Your task to perform on an android device: Open Google Maps Image 0: 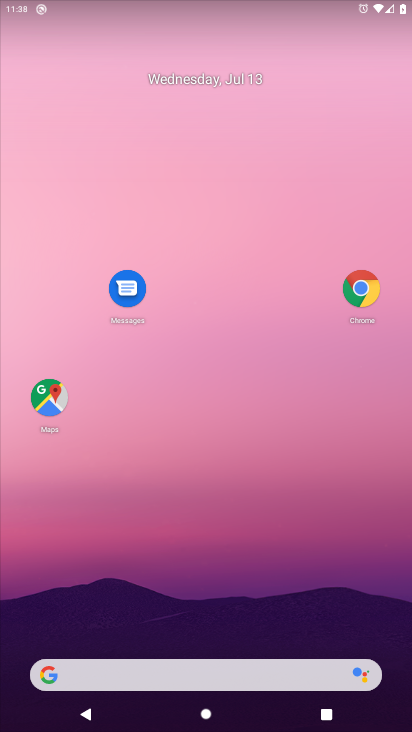
Step 0: click (53, 416)
Your task to perform on an android device: Open Google Maps Image 1: 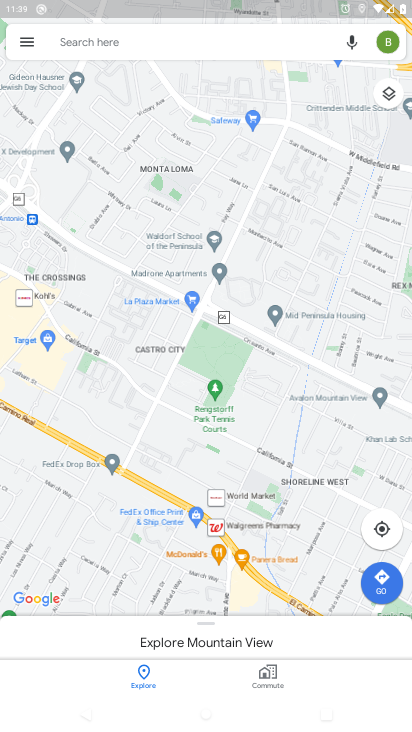
Step 1: task complete